Your task to perform on an android device: Is it going to rain today? Image 0: 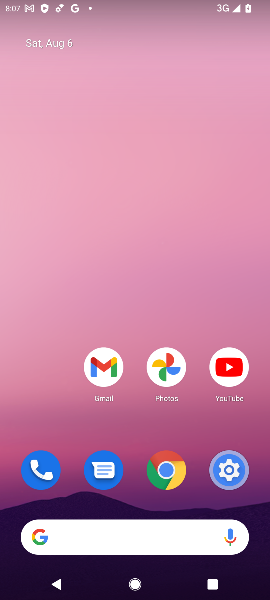
Step 0: drag from (89, 410) to (113, 150)
Your task to perform on an android device: Is it going to rain today? Image 1: 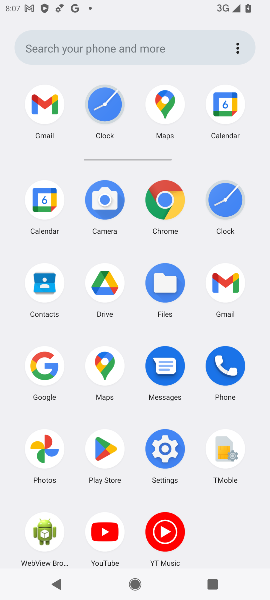
Step 1: click (48, 365)
Your task to perform on an android device: Is it going to rain today? Image 2: 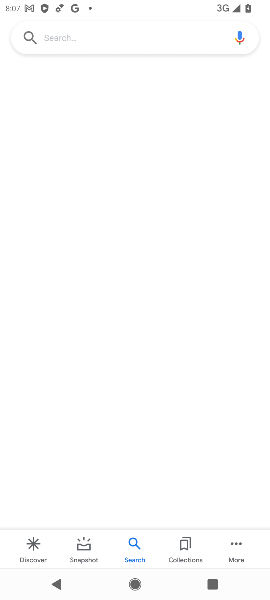
Step 2: click (111, 47)
Your task to perform on an android device: Is it going to rain today? Image 3: 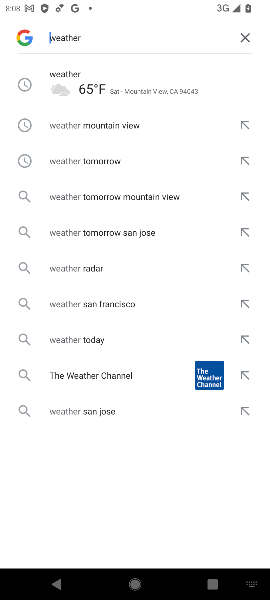
Step 3: click (104, 88)
Your task to perform on an android device: Is it going to rain today? Image 4: 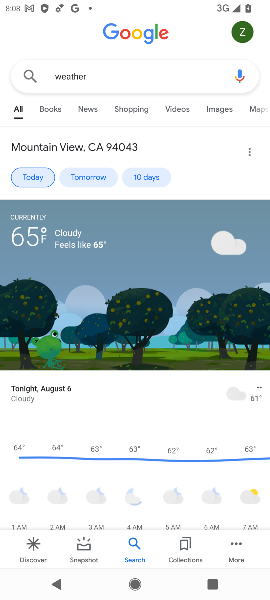
Step 4: task complete